Your task to perform on an android device: Play the last video I watched on Youtube Image 0: 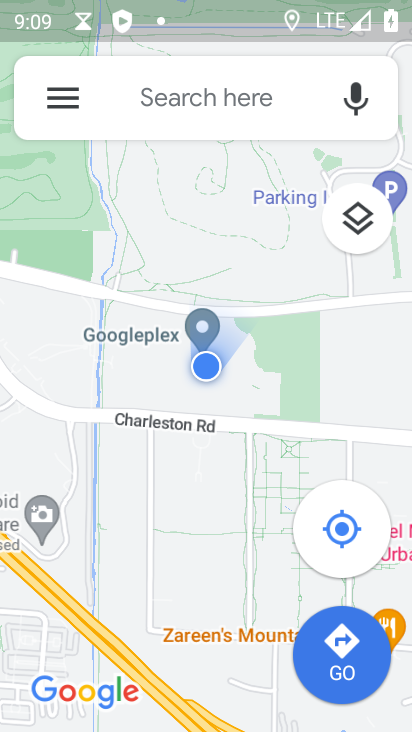
Step 0: press back button
Your task to perform on an android device: Play the last video I watched on Youtube Image 1: 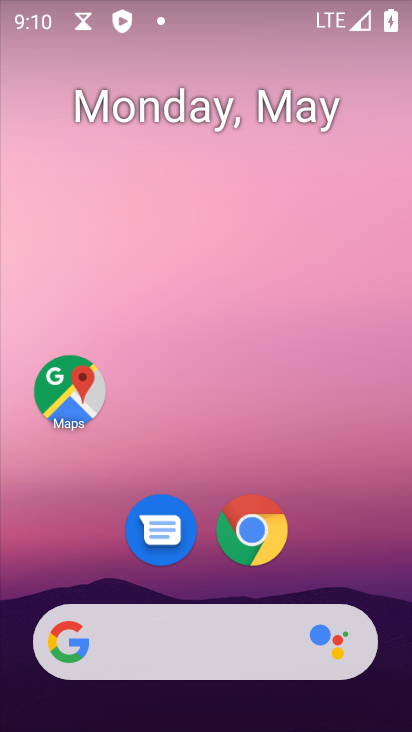
Step 1: drag from (362, 553) to (287, 19)
Your task to perform on an android device: Play the last video I watched on Youtube Image 2: 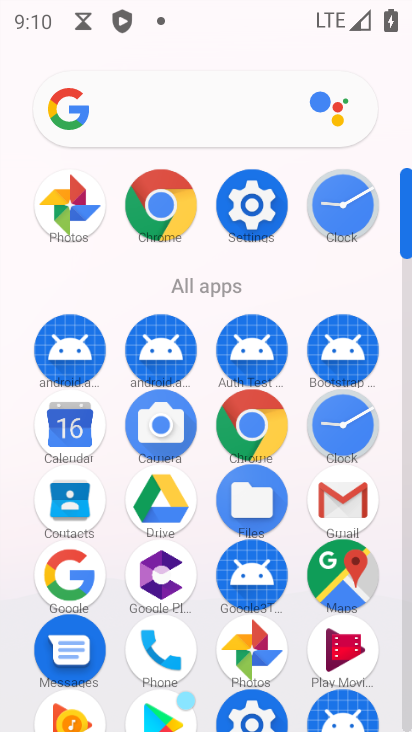
Step 2: drag from (20, 609) to (12, 282)
Your task to perform on an android device: Play the last video I watched on Youtube Image 3: 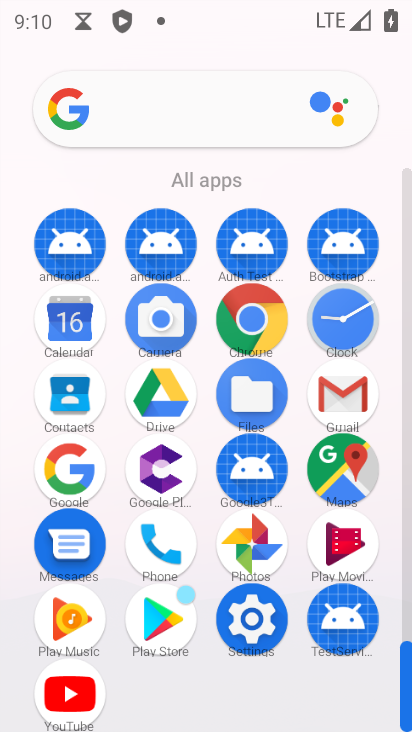
Step 3: click (69, 697)
Your task to perform on an android device: Play the last video I watched on Youtube Image 4: 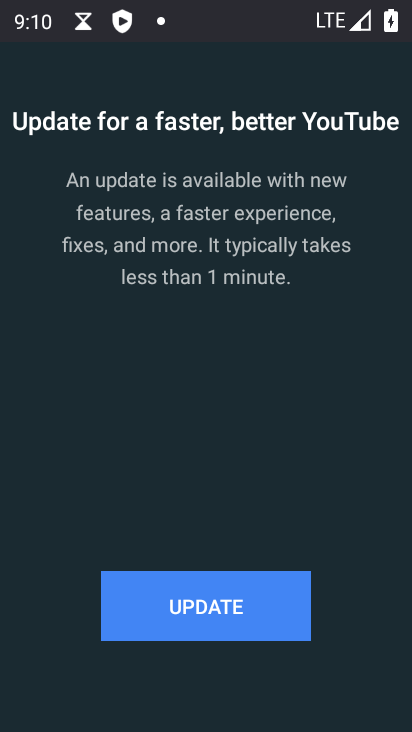
Step 4: click (153, 605)
Your task to perform on an android device: Play the last video I watched on Youtube Image 5: 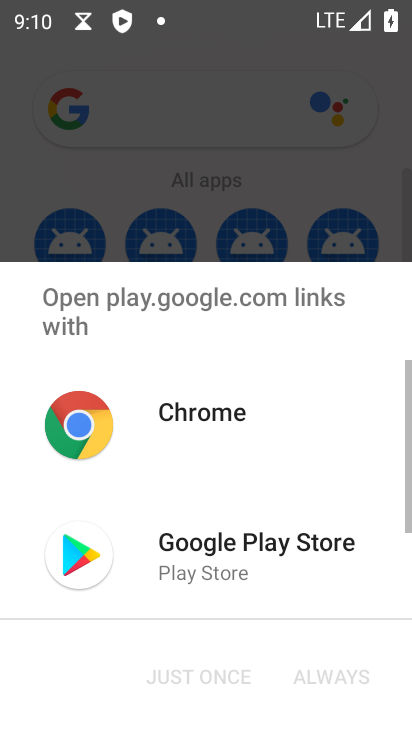
Step 5: click (193, 527)
Your task to perform on an android device: Play the last video I watched on Youtube Image 6: 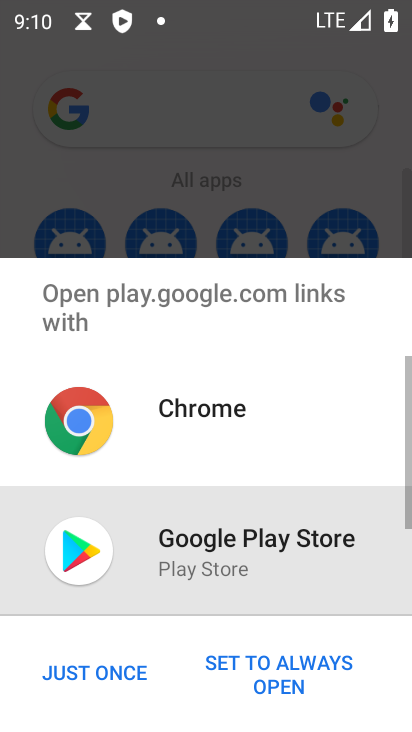
Step 6: click (101, 670)
Your task to perform on an android device: Play the last video I watched on Youtube Image 7: 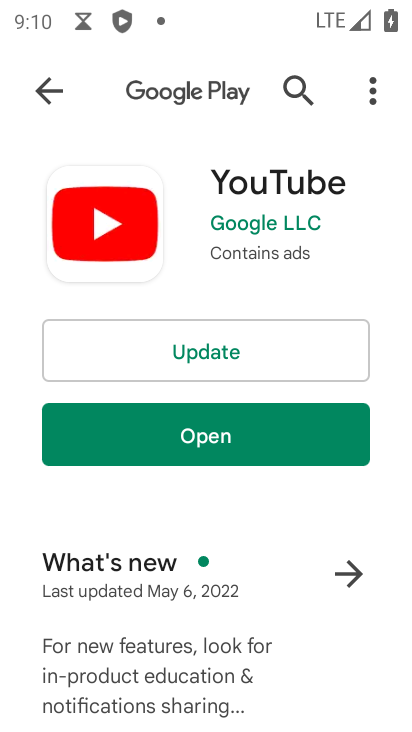
Step 7: click (242, 335)
Your task to perform on an android device: Play the last video I watched on Youtube Image 8: 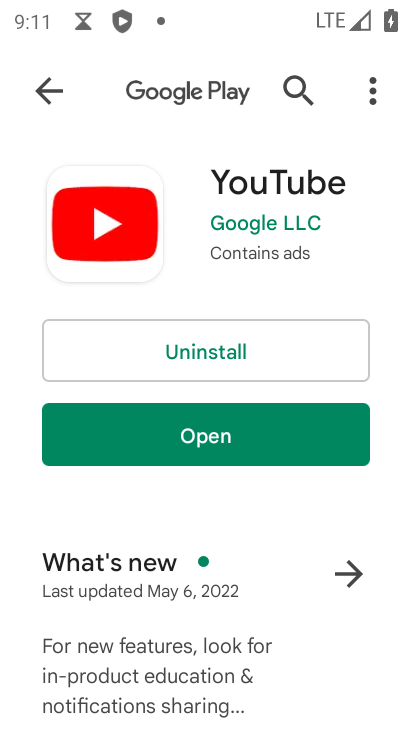
Step 8: click (252, 451)
Your task to perform on an android device: Play the last video I watched on Youtube Image 9: 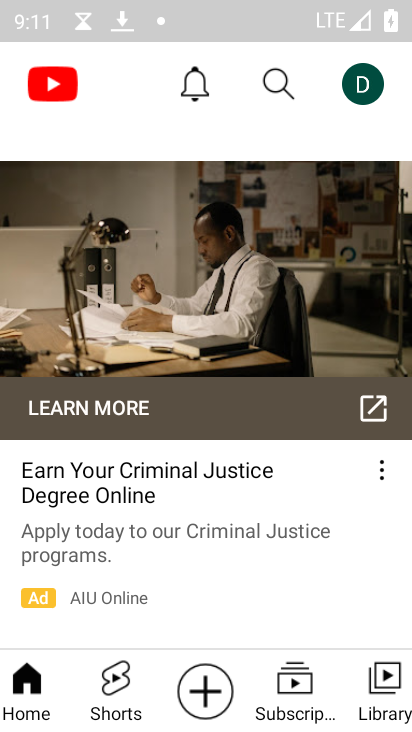
Step 9: click (384, 684)
Your task to perform on an android device: Play the last video I watched on Youtube Image 10: 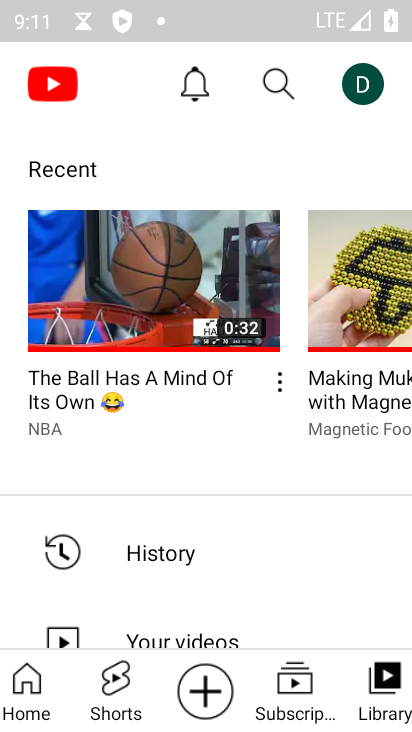
Step 10: click (134, 299)
Your task to perform on an android device: Play the last video I watched on Youtube Image 11: 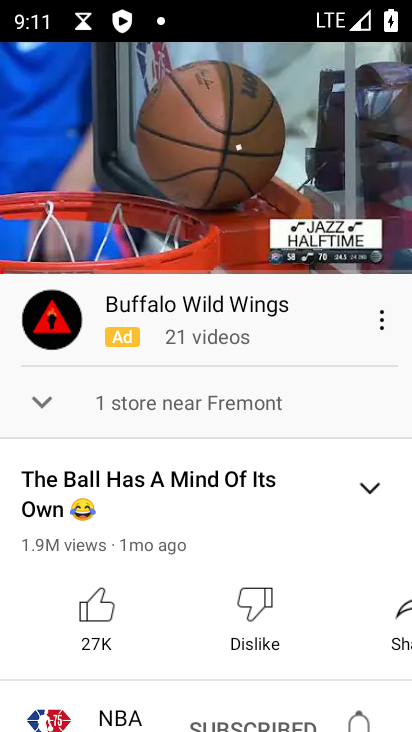
Step 11: task complete